Your task to perform on an android device: turn on bluetooth scan Image 0: 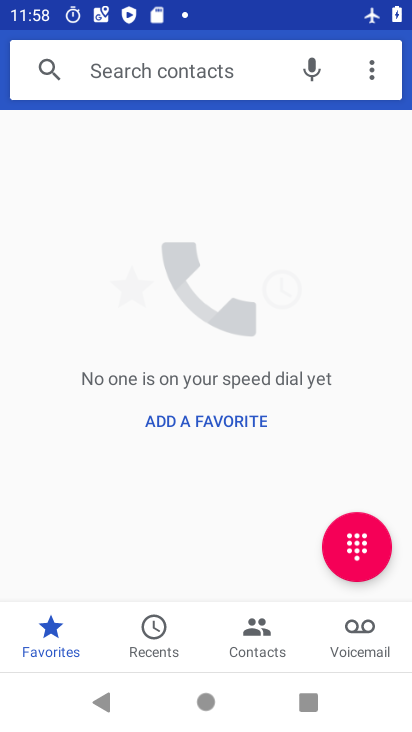
Step 0: press home button
Your task to perform on an android device: turn on bluetooth scan Image 1: 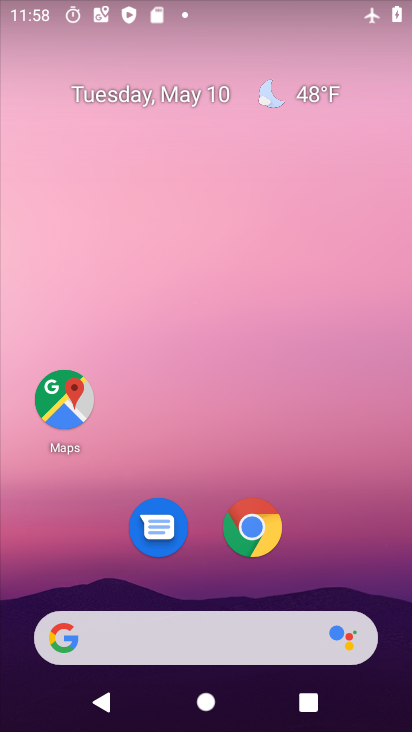
Step 1: drag from (228, 725) to (220, 230)
Your task to perform on an android device: turn on bluetooth scan Image 2: 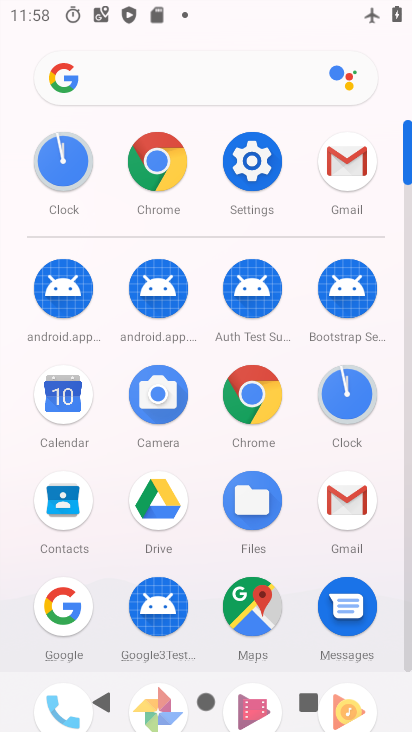
Step 2: click (244, 169)
Your task to perform on an android device: turn on bluetooth scan Image 3: 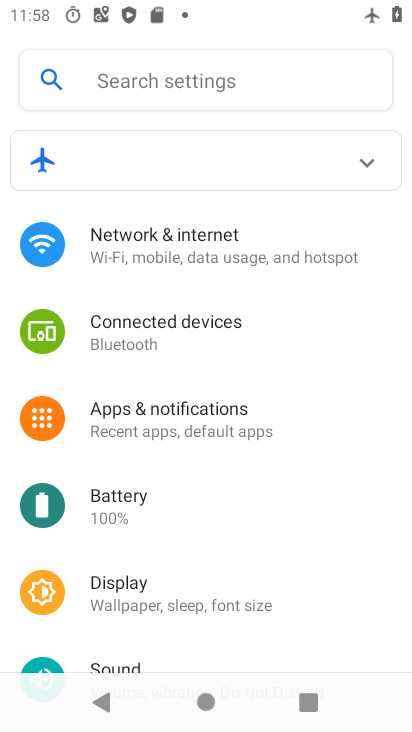
Step 3: drag from (186, 640) to (194, 291)
Your task to perform on an android device: turn on bluetooth scan Image 4: 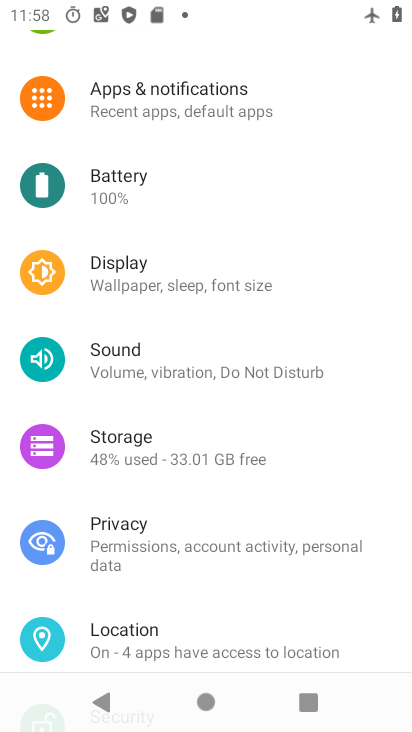
Step 4: click (158, 635)
Your task to perform on an android device: turn on bluetooth scan Image 5: 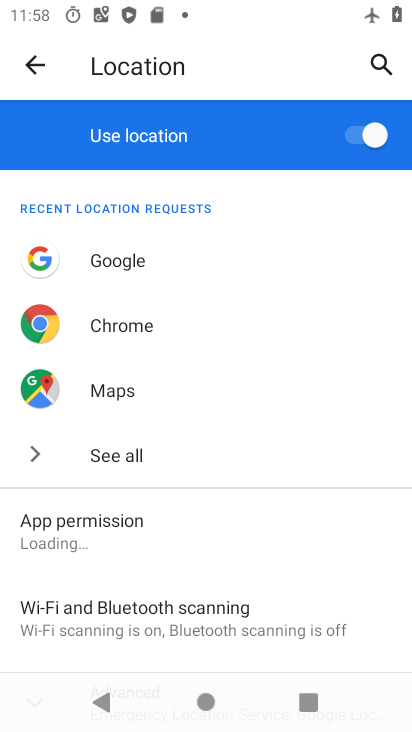
Step 5: click (141, 618)
Your task to perform on an android device: turn on bluetooth scan Image 6: 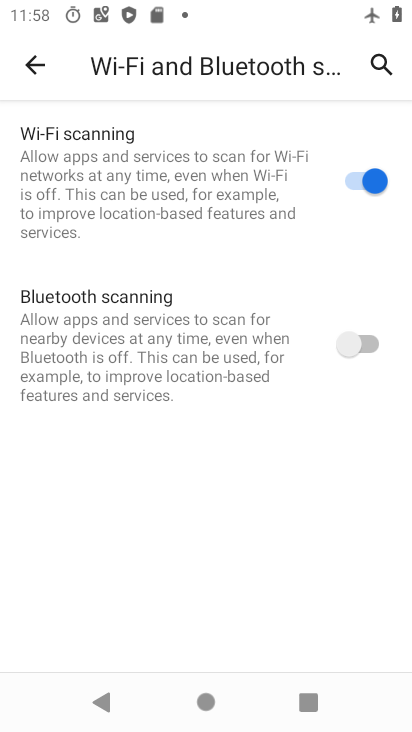
Step 6: click (367, 342)
Your task to perform on an android device: turn on bluetooth scan Image 7: 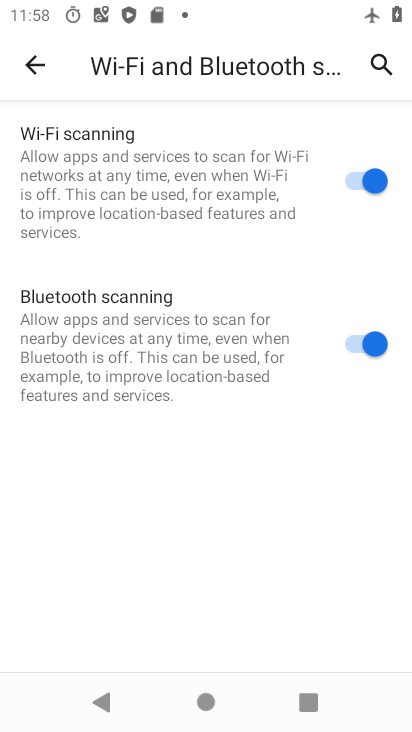
Step 7: task complete